Your task to perform on an android device: search for starred emails in the gmail app Image 0: 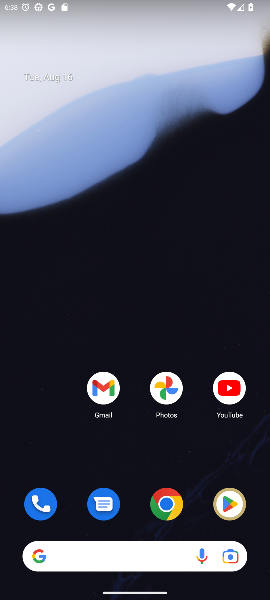
Step 0: click (107, 396)
Your task to perform on an android device: search for starred emails in the gmail app Image 1: 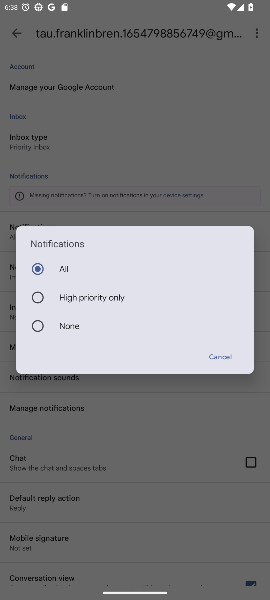
Step 1: click (221, 357)
Your task to perform on an android device: search for starred emails in the gmail app Image 2: 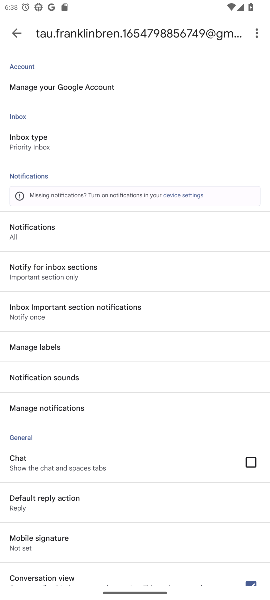
Step 2: press back button
Your task to perform on an android device: search for starred emails in the gmail app Image 3: 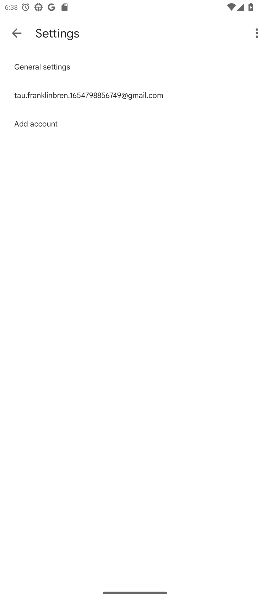
Step 3: press back button
Your task to perform on an android device: search for starred emails in the gmail app Image 4: 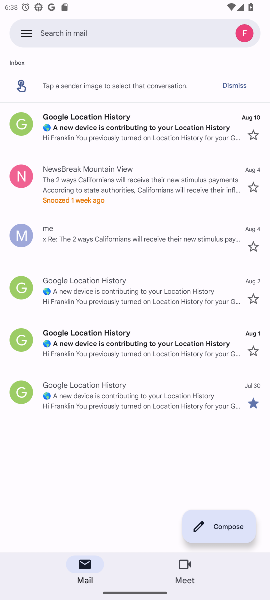
Step 4: click (24, 33)
Your task to perform on an android device: search for starred emails in the gmail app Image 5: 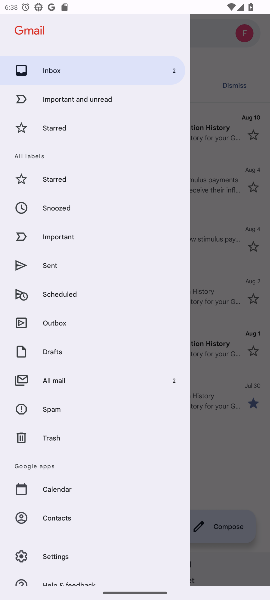
Step 5: click (62, 182)
Your task to perform on an android device: search for starred emails in the gmail app Image 6: 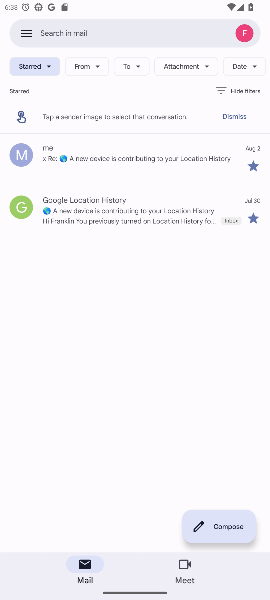
Step 6: task complete